Your task to perform on an android device: Go to calendar. Show me events next week Image 0: 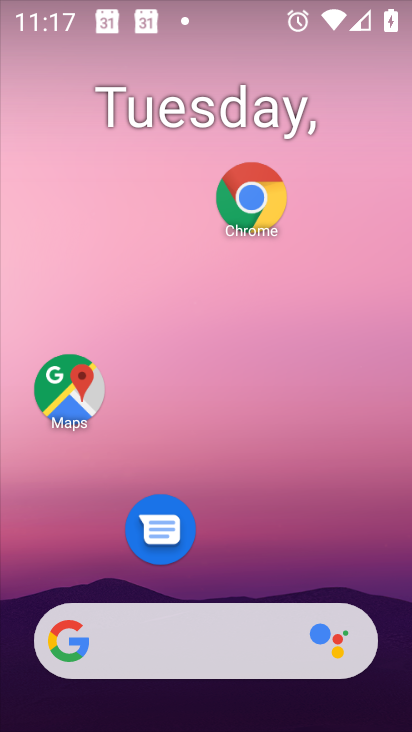
Step 0: drag from (389, 493) to (374, 7)
Your task to perform on an android device: Go to calendar. Show me events next week Image 1: 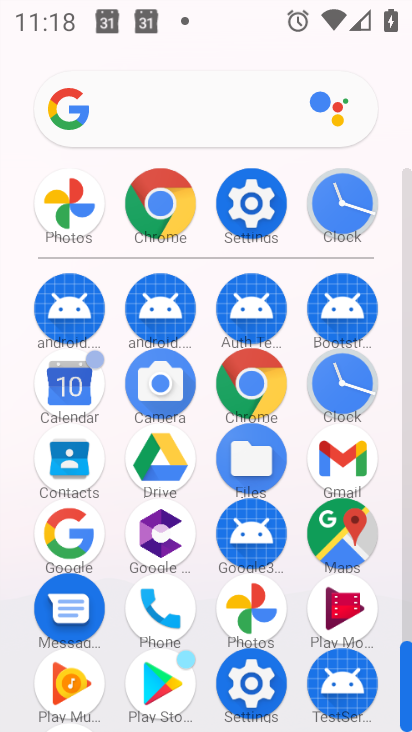
Step 1: click (61, 422)
Your task to perform on an android device: Go to calendar. Show me events next week Image 2: 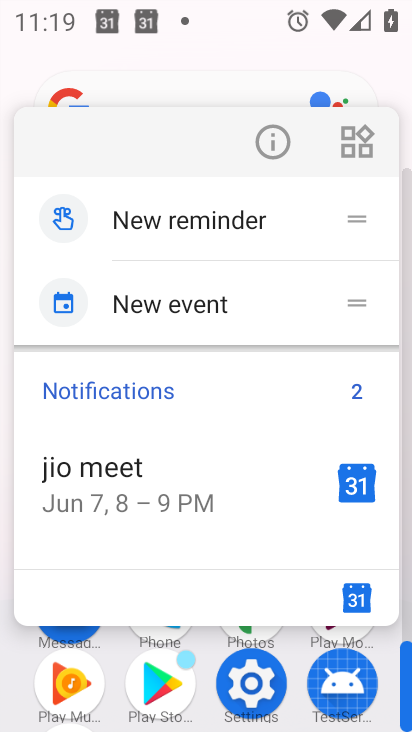
Step 2: click (157, 647)
Your task to perform on an android device: Go to calendar. Show me events next week Image 3: 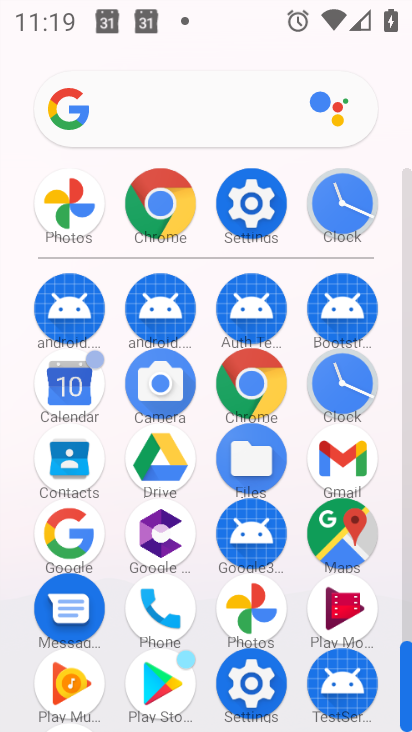
Step 3: click (51, 377)
Your task to perform on an android device: Go to calendar. Show me events next week Image 4: 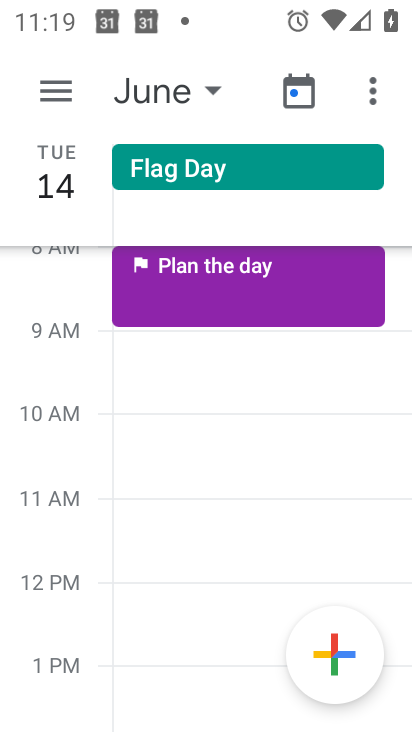
Step 4: click (49, 103)
Your task to perform on an android device: Go to calendar. Show me events next week Image 5: 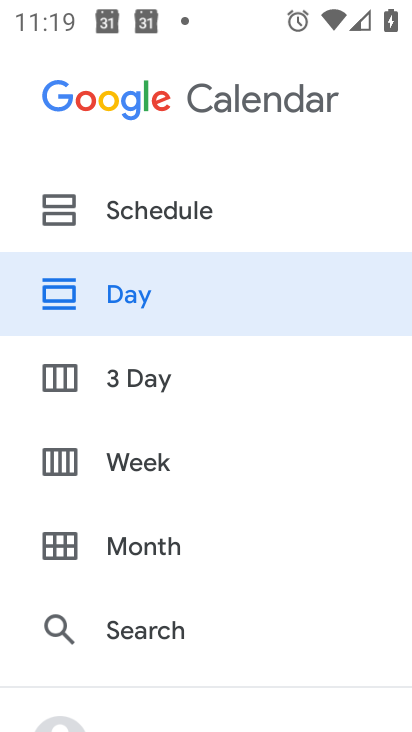
Step 5: click (171, 458)
Your task to perform on an android device: Go to calendar. Show me events next week Image 6: 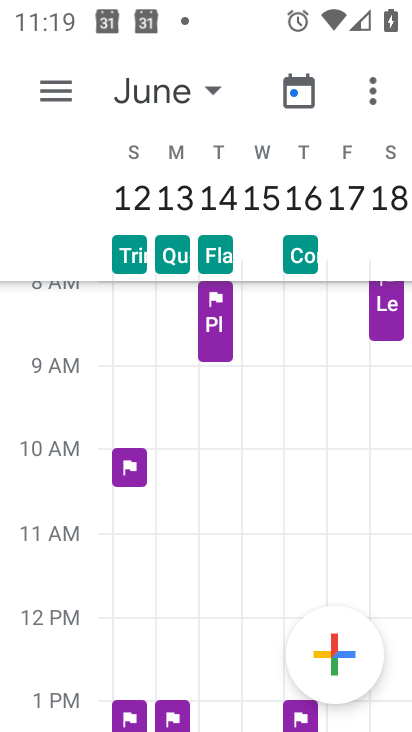
Step 6: task complete